Your task to perform on an android device: set the stopwatch Image 0: 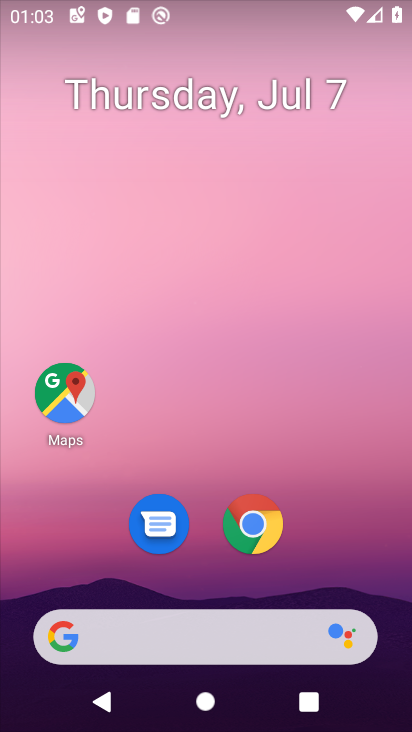
Step 0: drag from (233, 453) to (289, 1)
Your task to perform on an android device: set the stopwatch Image 1: 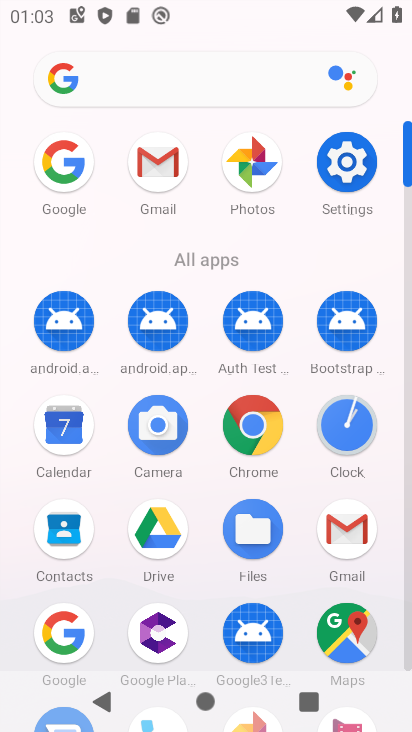
Step 1: click (351, 414)
Your task to perform on an android device: set the stopwatch Image 2: 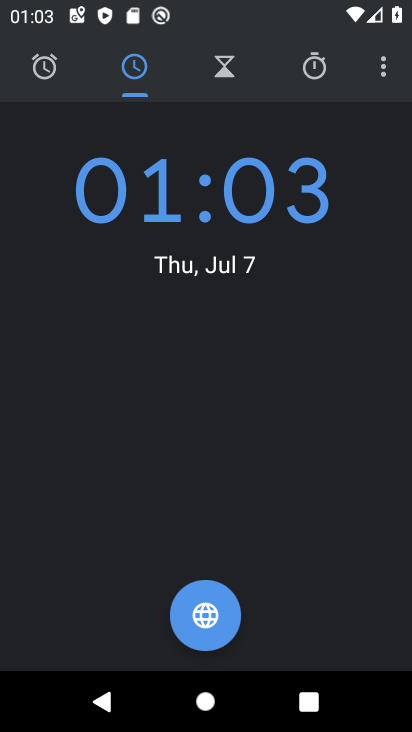
Step 2: click (316, 59)
Your task to perform on an android device: set the stopwatch Image 3: 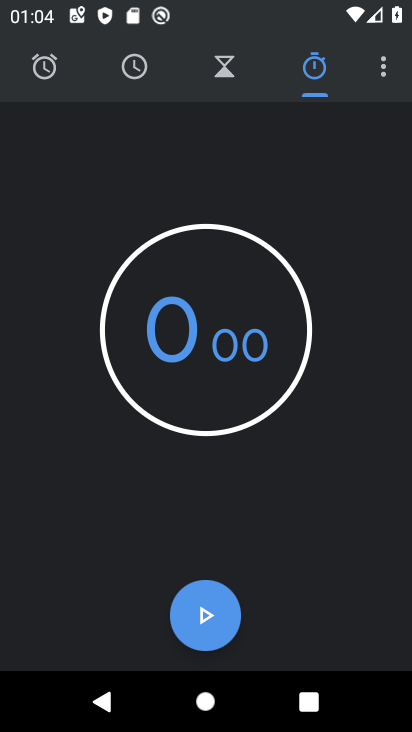
Step 3: click (243, 350)
Your task to perform on an android device: set the stopwatch Image 4: 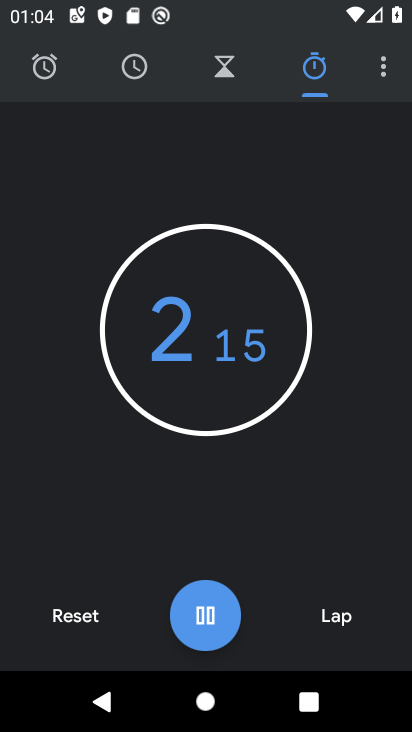
Step 4: click (95, 619)
Your task to perform on an android device: set the stopwatch Image 5: 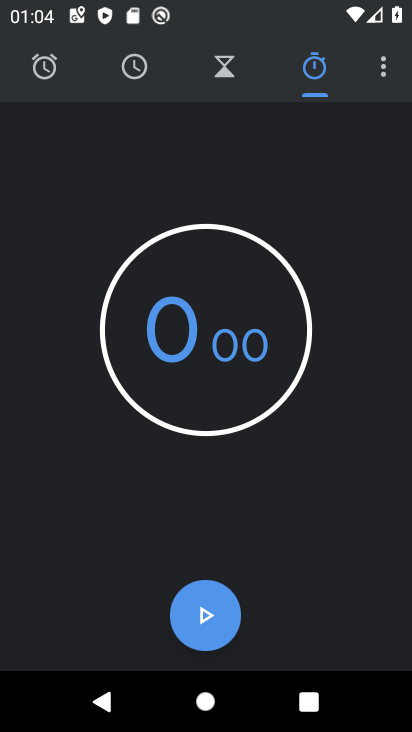
Step 5: task complete